Your task to perform on an android device: stop showing notifications on the lock screen Image 0: 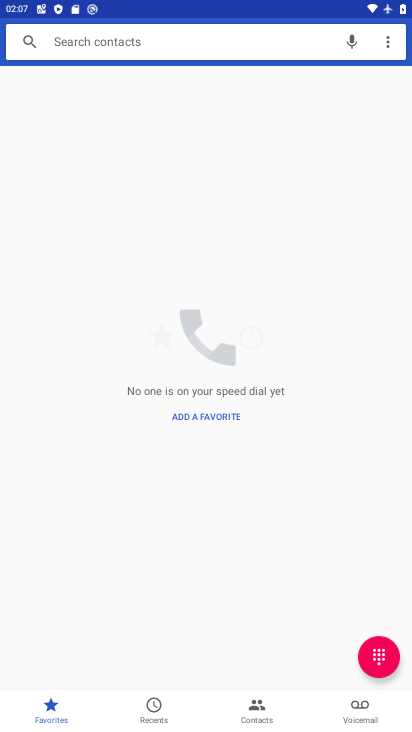
Step 0: press home button
Your task to perform on an android device: stop showing notifications on the lock screen Image 1: 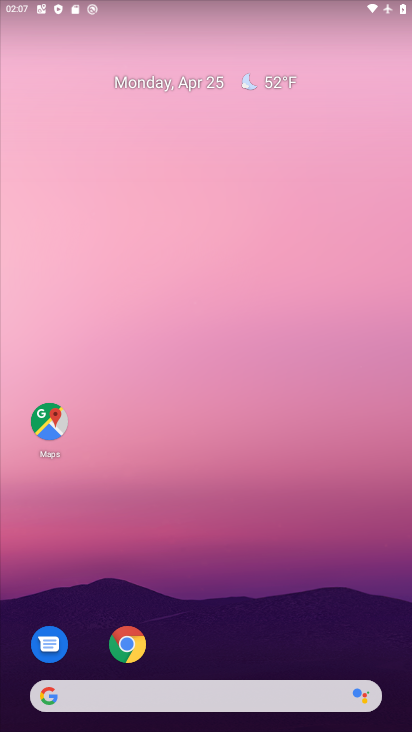
Step 1: click (122, 658)
Your task to perform on an android device: stop showing notifications on the lock screen Image 2: 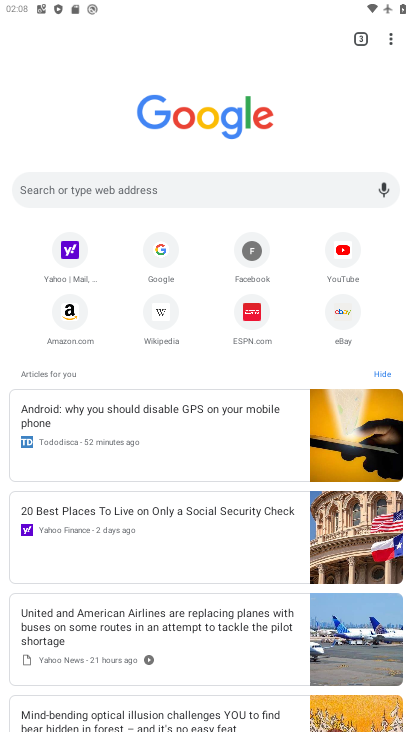
Step 2: click (385, 46)
Your task to perform on an android device: stop showing notifications on the lock screen Image 3: 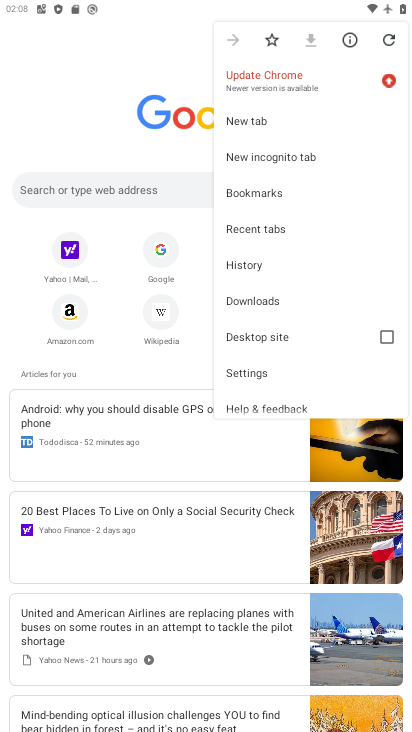
Step 3: press home button
Your task to perform on an android device: stop showing notifications on the lock screen Image 4: 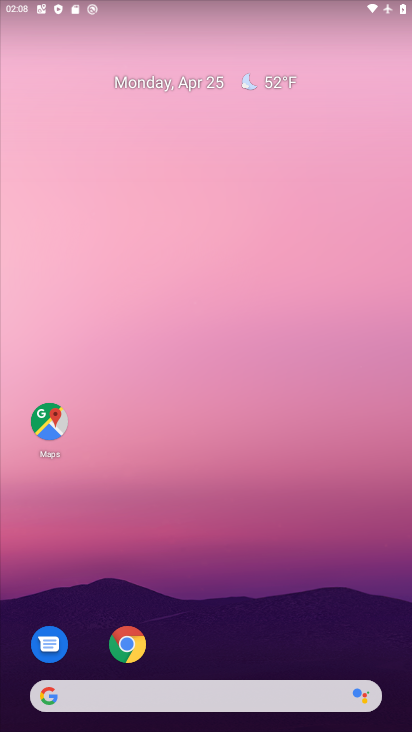
Step 4: drag from (248, 651) to (278, 134)
Your task to perform on an android device: stop showing notifications on the lock screen Image 5: 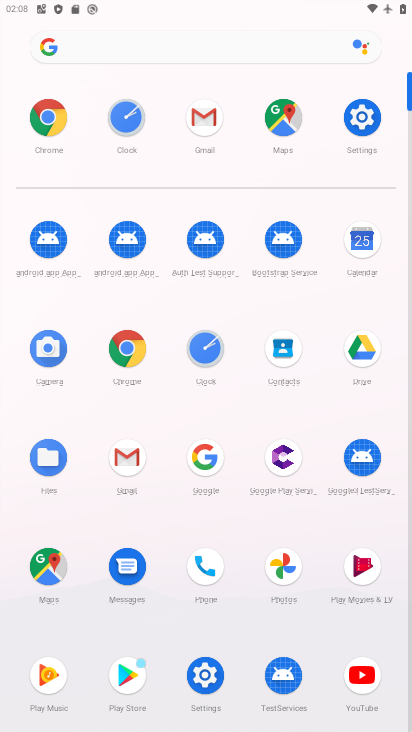
Step 5: click (376, 142)
Your task to perform on an android device: stop showing notifications on the lock screen Image 6: 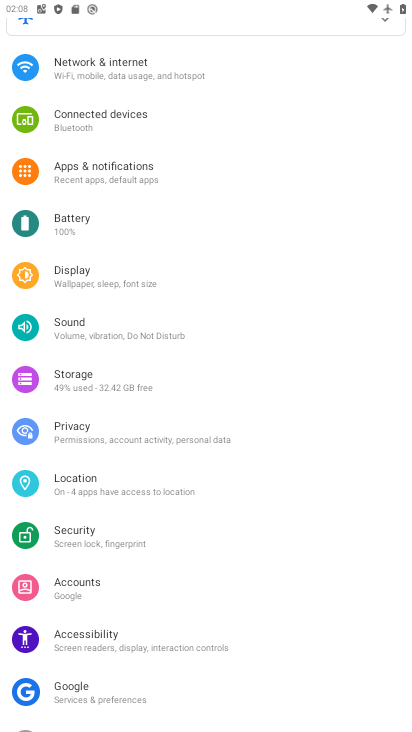
Step 6: drag from (177, 645) to (268, 726)
Your task to perform on an android device: stop showing notifications on the lock screen Image 7: 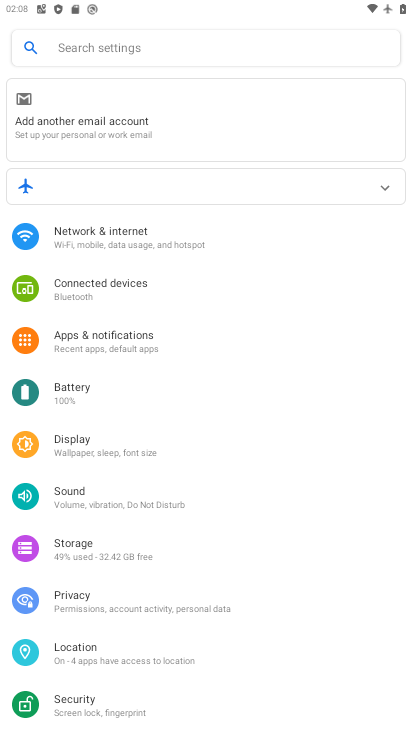
Step 7: click (142, 631)
Your task to perform on an android device: stop showing notifications on the lock screen Image 8: 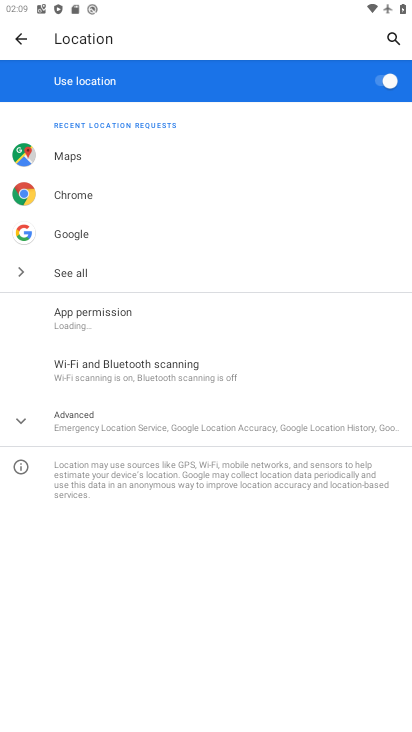
Step 8: click (16, 43)
Your task to perform on an android device: stop showing notifications on the lock screen Image 9: 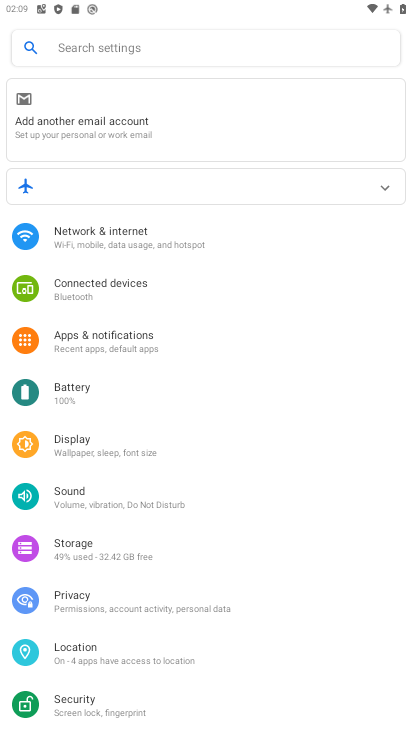
Step 9: click (144, 358)
Your task to perform on an android device: stop showing notifications on the lock screen Image 10: 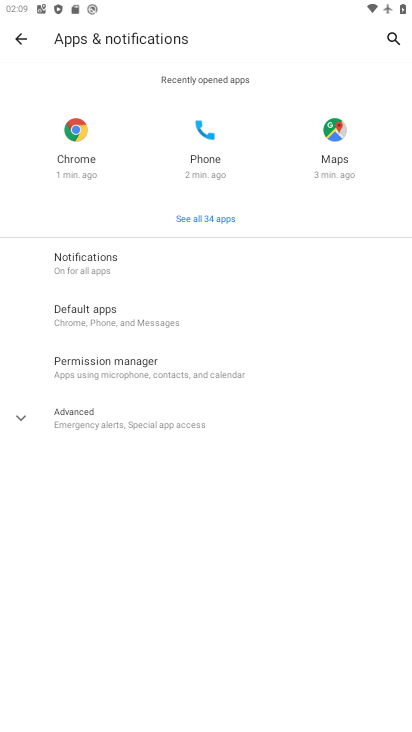
Step 10: click (180, 273)
Your task to perform on an android device: stop showing notifications on the lock screen Image 11: 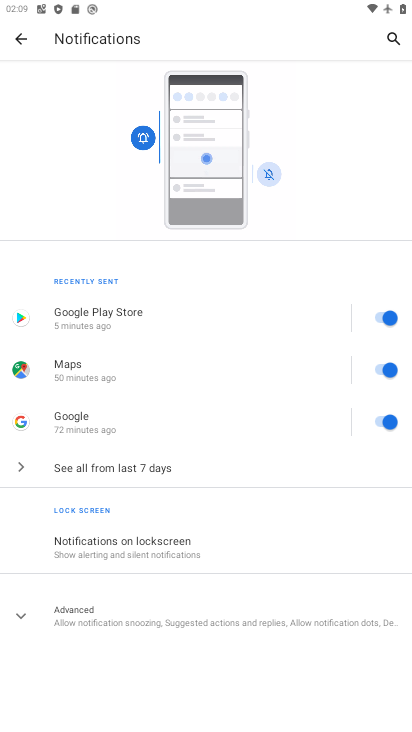
Step 11: click (224, 550)
Your task to perform on an android device: stop showing notifications on the lock screen Image 12: 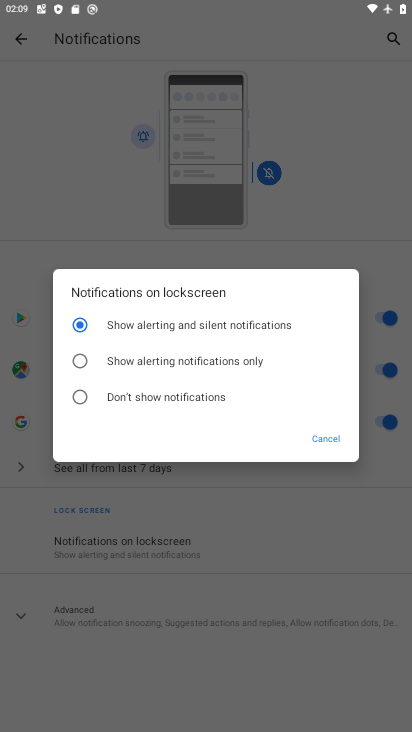
Step 12: click (196, 391)
Your task to perform on an android device: stop showing notifications on the lock screen Image 13: 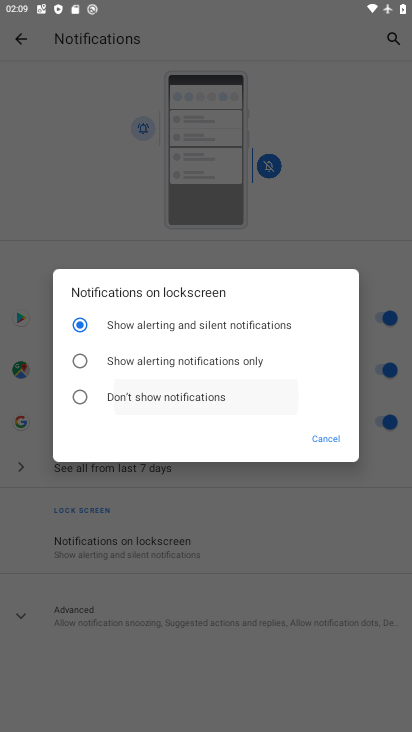
Step 13: task complete